Your task to perform on an android device: turn pop-ups on in chrome Image 0: 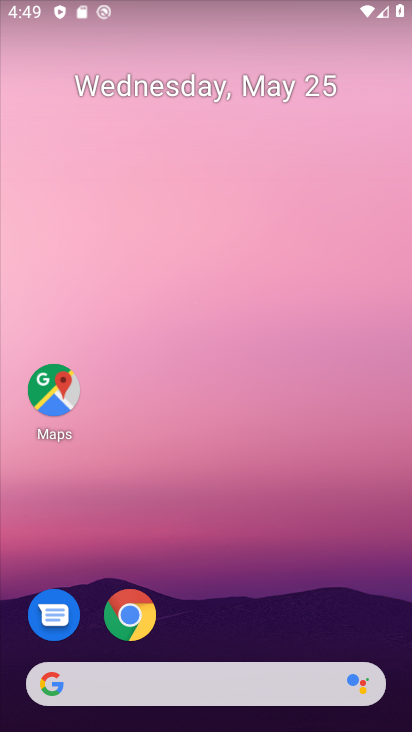
Step 0: click (136, 627)
Your task to perform on an android device: turn pop-ups on in chrome Image 1: 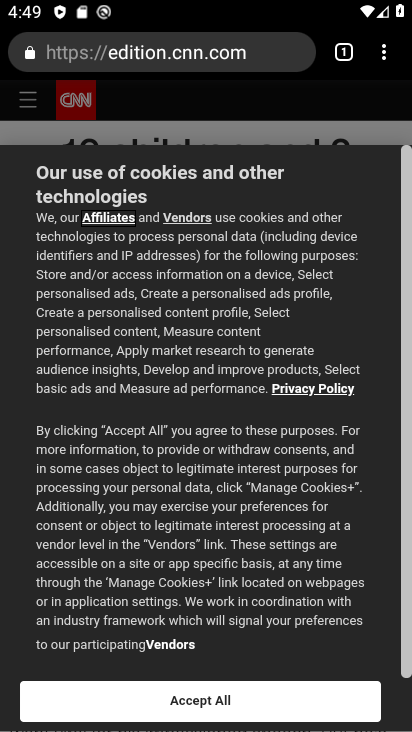
Step 1: drag from (388, 51) to (204, 580)
Your task to perform on an android device: turn pop-ups on in chrome Image 2: 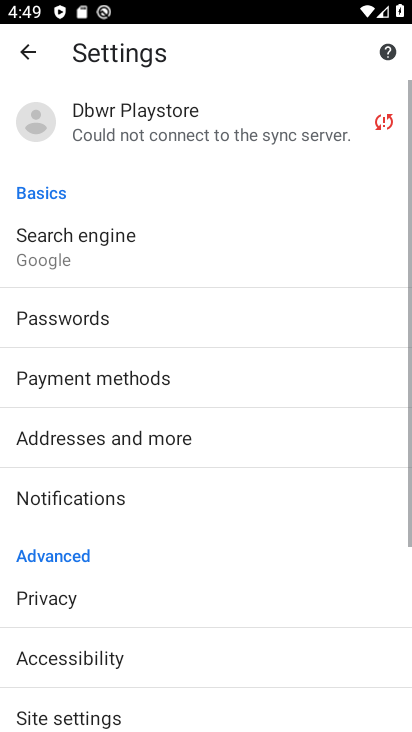
Step 2: drag from (204, 570) to (252, 269)
Your task to perform on an android device: turn pop-ups on in chrome Image 3: 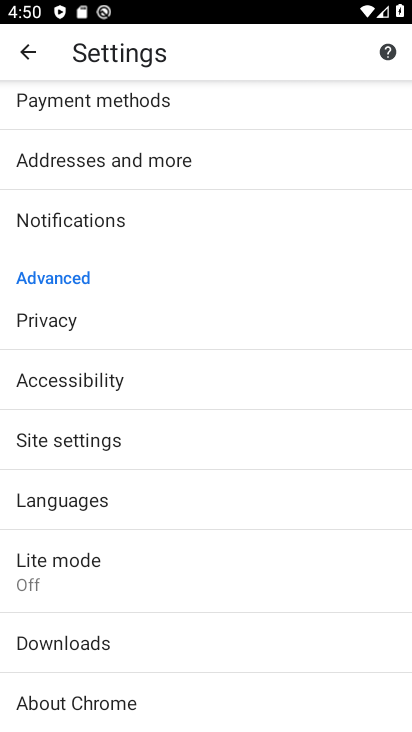
Step 3: click (69, 452)
Your task to perform on an android device: turn pop-ups on in chrome Image 4: 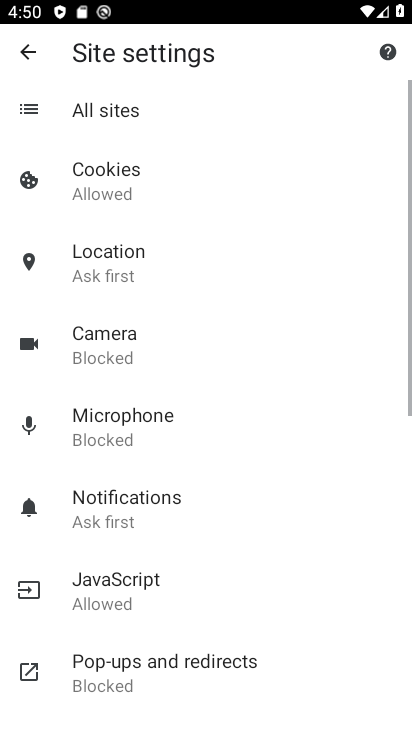
Step 4: drag from (147, 642) to (173, 466)
Your task to perform on an android device: turn pop-ups on in chrome Image 5: 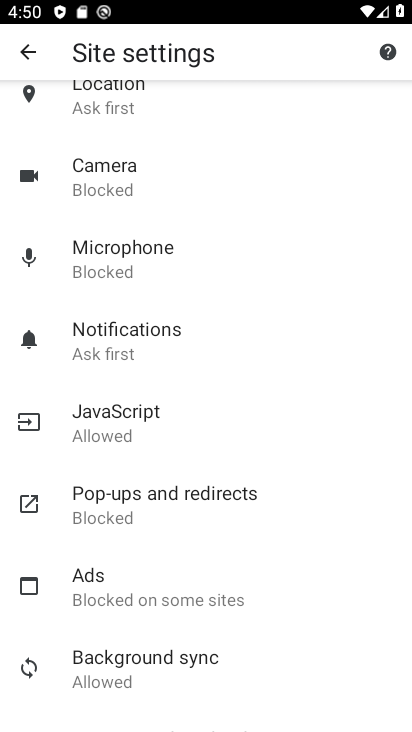
Step 5: click (189, 495)
Your task to perform on an android device: turn pop-ups on in chrome Image 6: 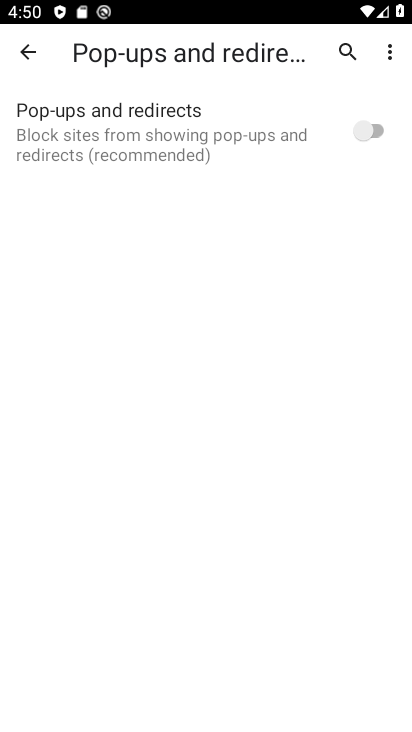
Step 6: click (370, 129)
Your task to perform on an android device: turn pop-ups on in chrome Image 7: 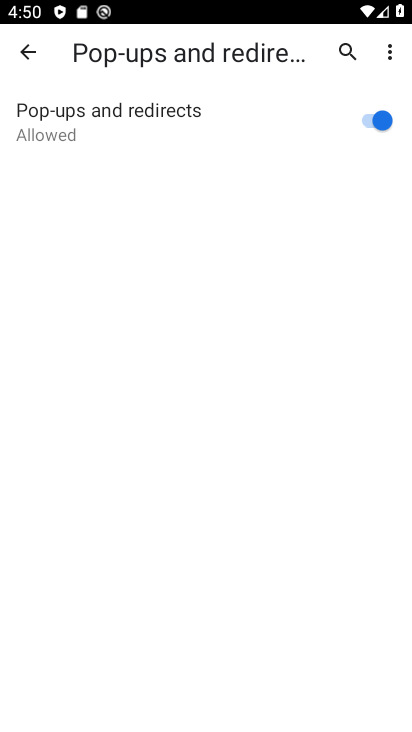
Step 7: task complete